Your task to perform on an android device: Go to settings Image 0: 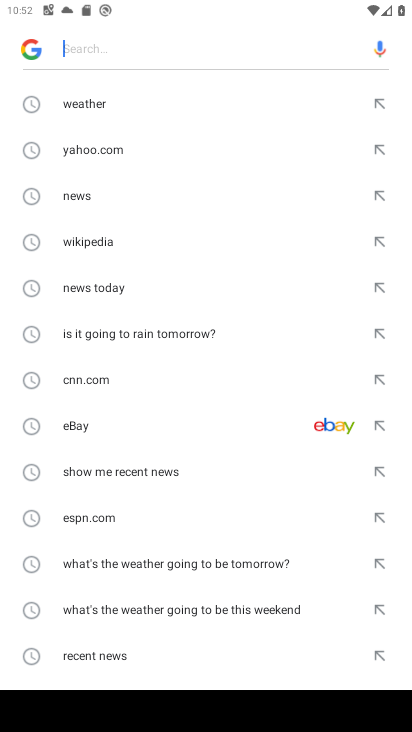
Step 0: press home button
Your task to perform on an android device: Go to settings Image 1: 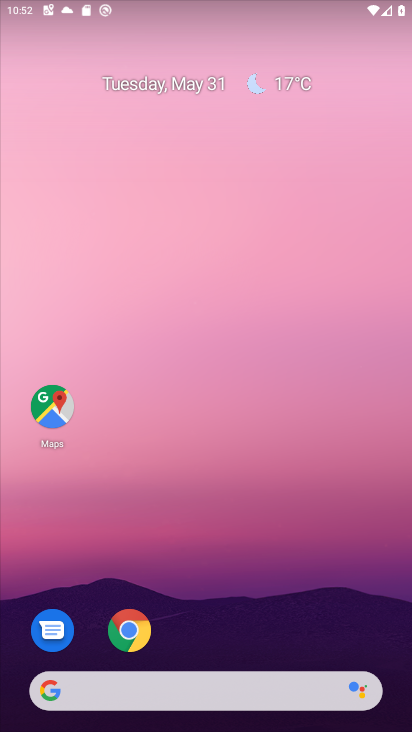
Step 1: drag from (253, 461) to (264, 40)
Your task to perform on an android device: Go to settings Image 2: 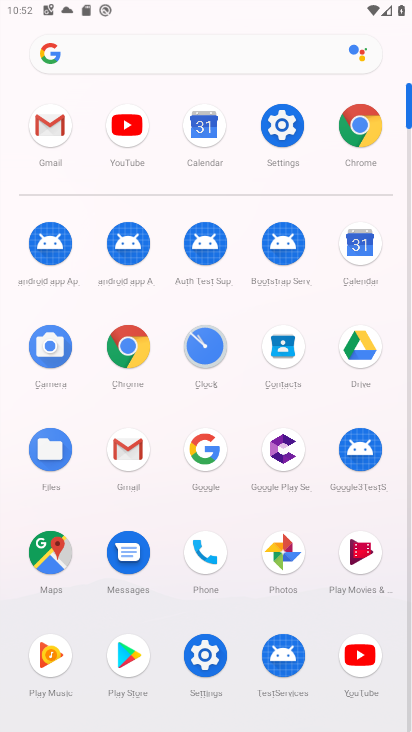
Step 2: click (282, 122)
Your task to perform on an android device: Go to settings Image 3: 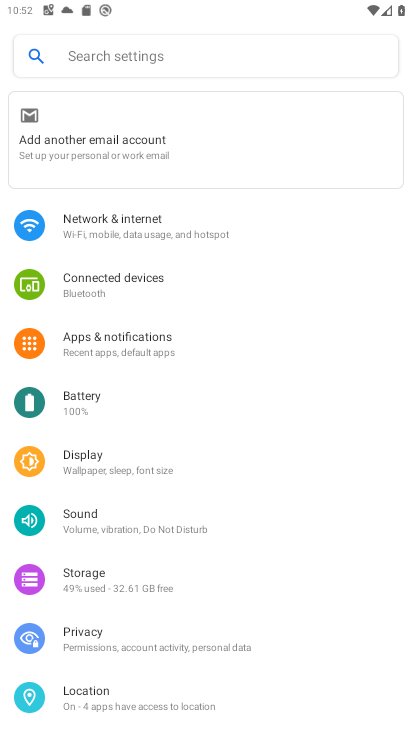
Step 3: task complete